Your task to perform on an android device: turn smart compose on in the gmail app Image 0: 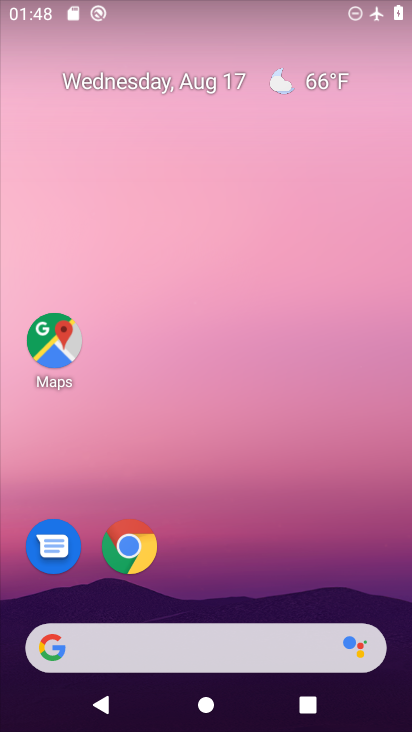
Step 0: drag from (213, 581) to (213, 79)
Your task to perform on an android device: turn smart compose on in the gmail app Image 1: 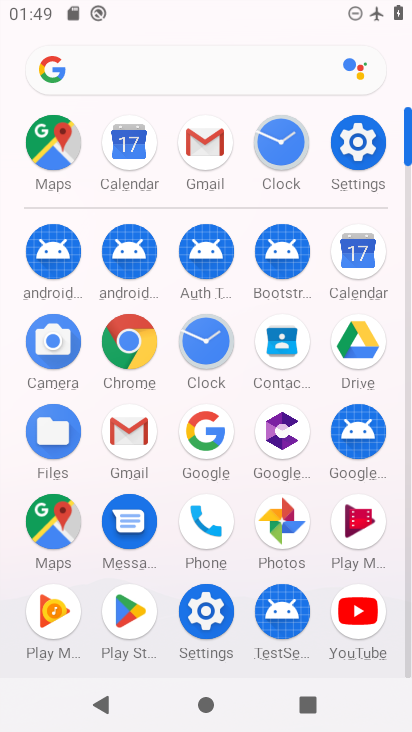
Step 1: click (204, 137)
Your task to perform on an android device: turn smart compose on in the gmail app Image 2: 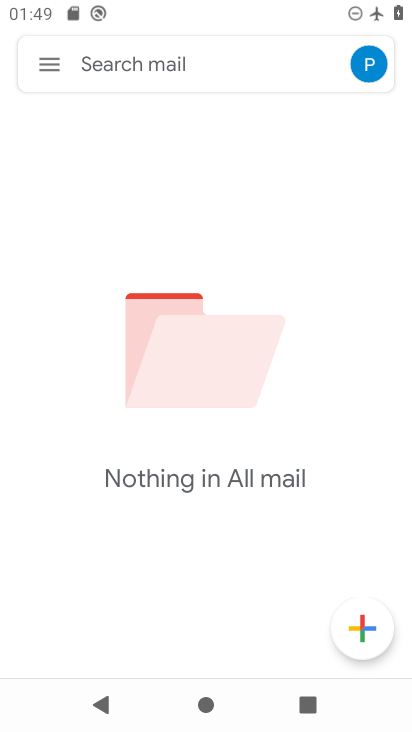
Step 2: click (41, 61)
Your task to perform on an android device: turn smart compose on in the gmail app Image 3: 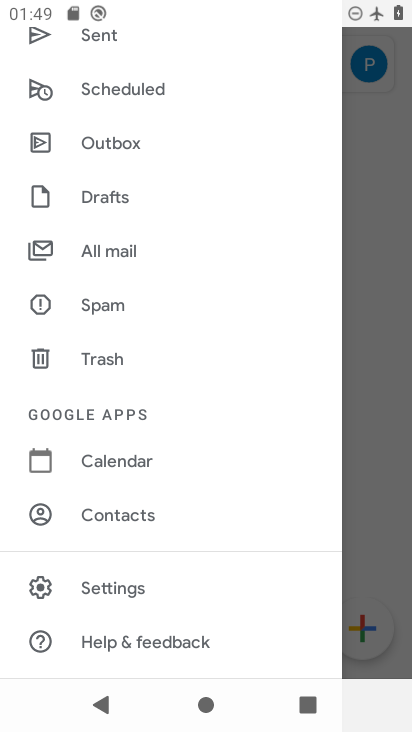
Step 3: drag from (179, 568) to (215, 277)
Your task to perform on an android device: turn smart compose on in the gmail app Image 4: 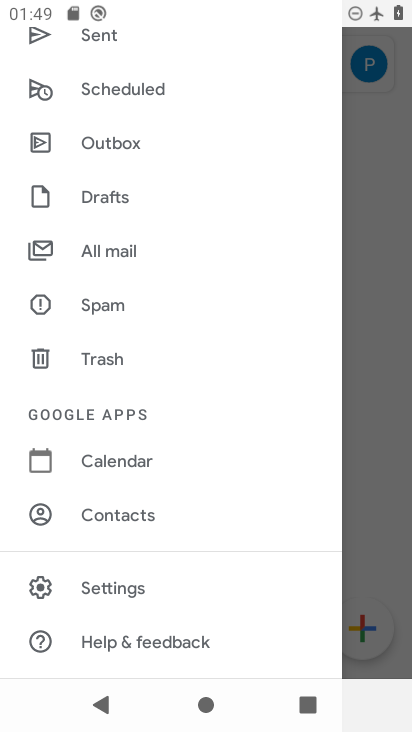
Step 4: click (117, 586)
Your task to perform on an android device: turn smart compose on in the gmail app Image 5: 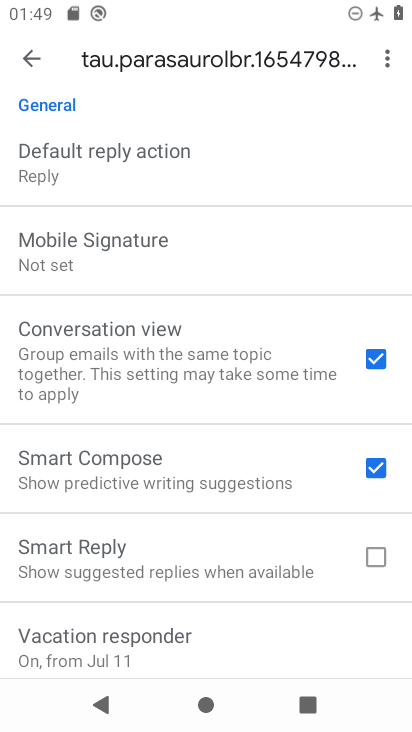
Step 5: click (201, 171)
Your task to perform on an android device: turn smart compose on in the gmail app Image 6: 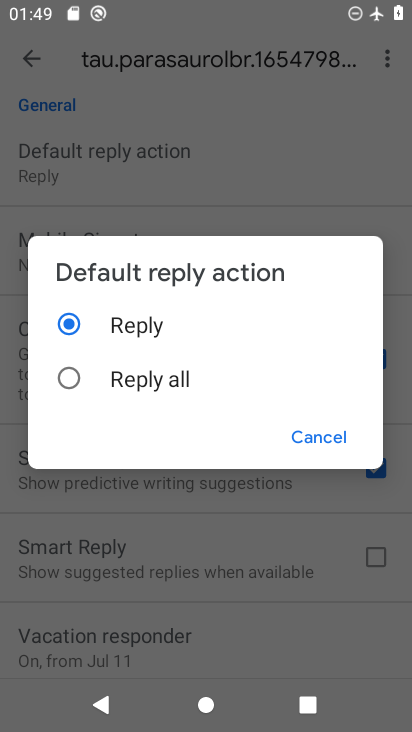
Step 6: click (324, 436)
Your task to perform on an android device: turn smart compose on in the gmail app Image 7: 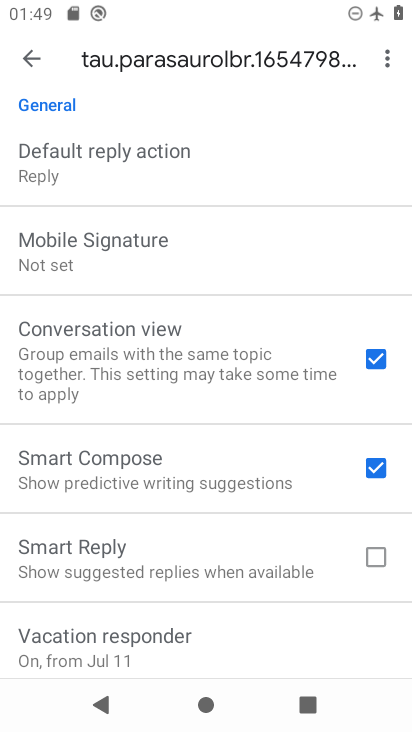
Step 7: task complete